Your task to perform on an android device: Open Google Chrome and open the bookmarks view Image 0: 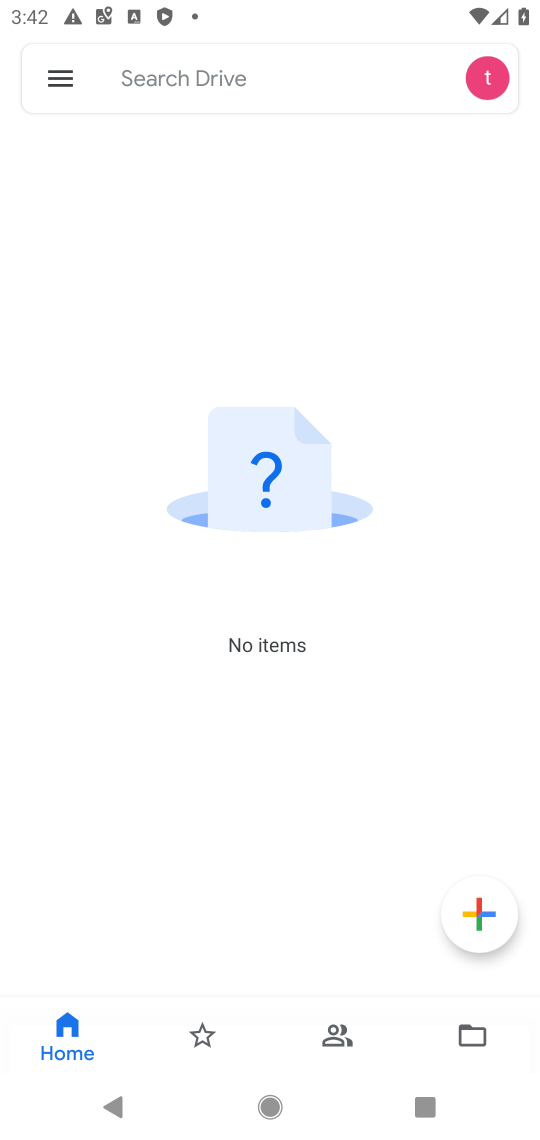
Step 0: press back button
Your task to perform on an android device: Open Google Chrome and open the bookmarks view Image 1: 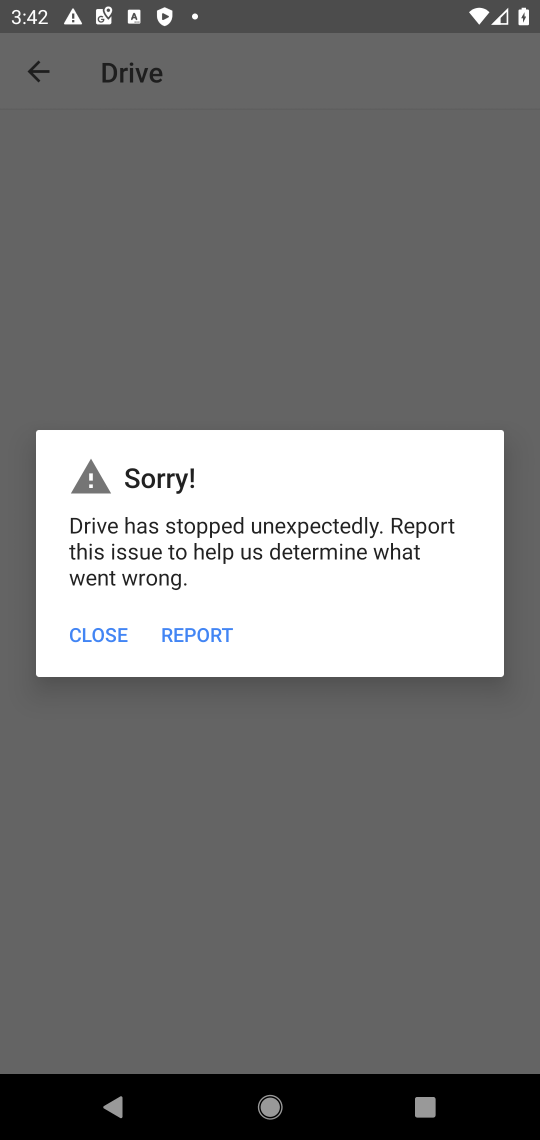
Step 1: press back button
Your task to perform on an android device: Open Google Chrome and open the bookmarks view Image 2: 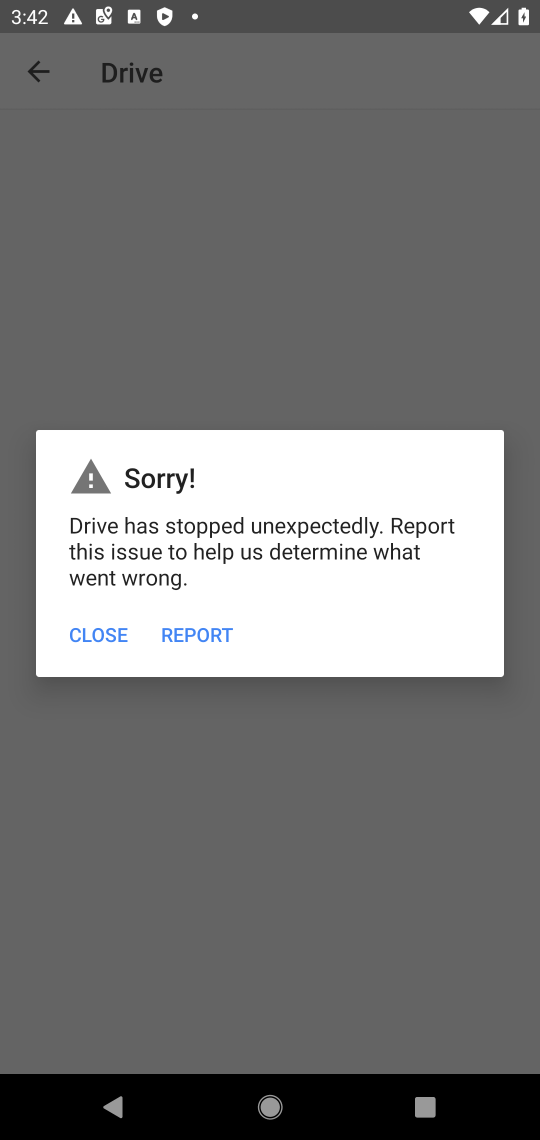
Step 2: press back button
Your task to perform on an android device: Open Google Chrome and open the bookmarks view Image 3: 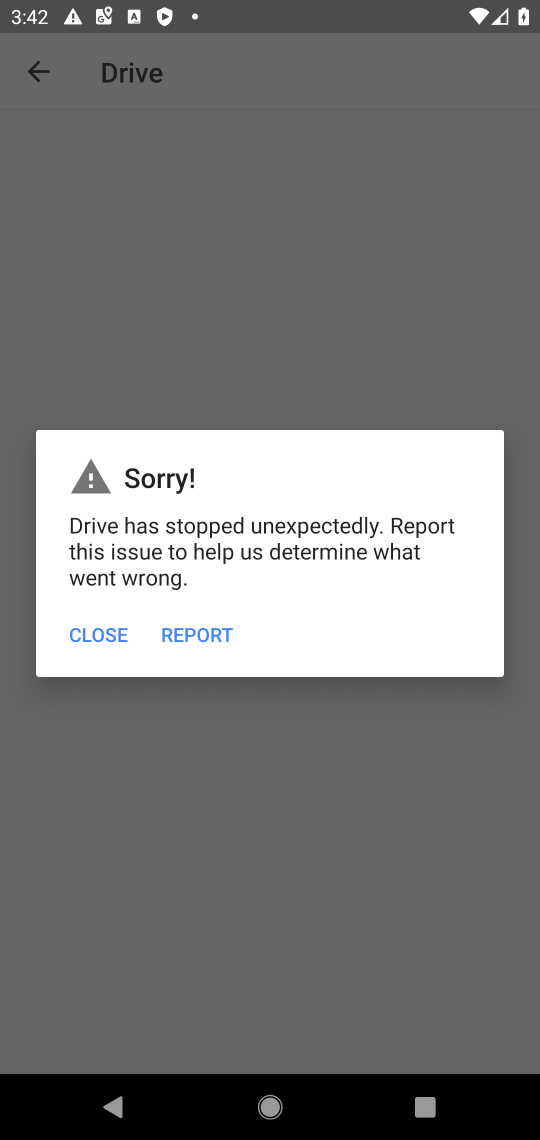
Step 3: press home button
Your task to perform on an android device: Open Google Chrome and open the bookmarks view Image 4: 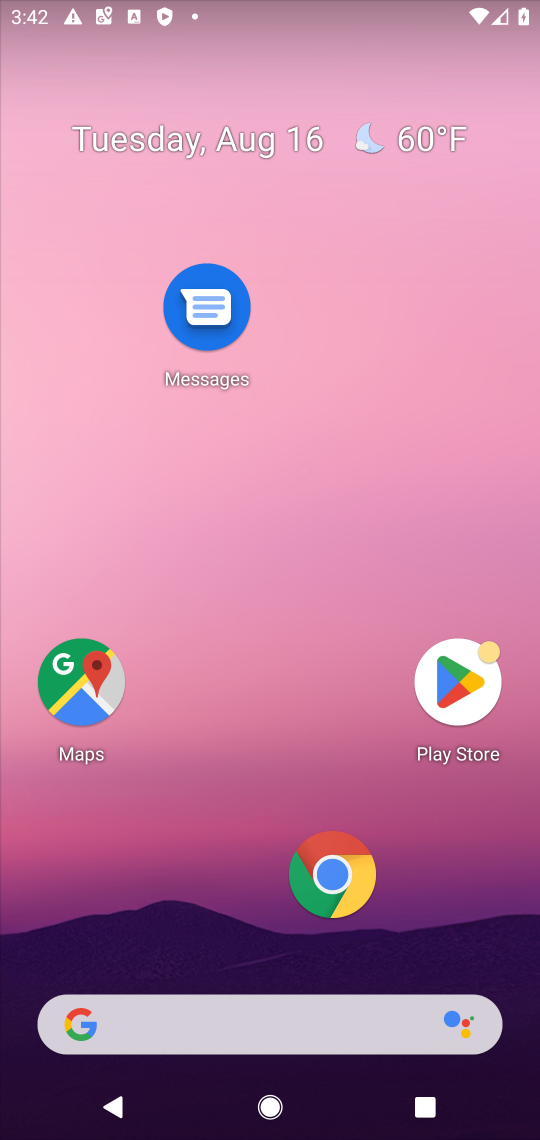
Step 4: click (321, 879)
Your task to perform on an android device: Open Google Chrome and open the bookmarks view Image 5: 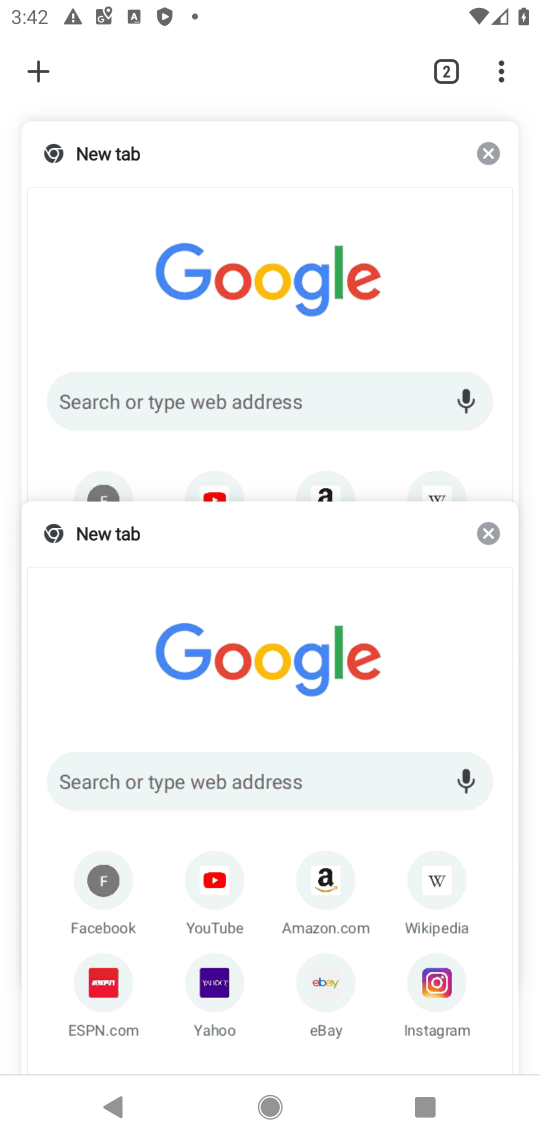
Step 5: click (493, 79)
Your task to perform on an android device: Open Google Chrome and open the bookmarks view Image 6: 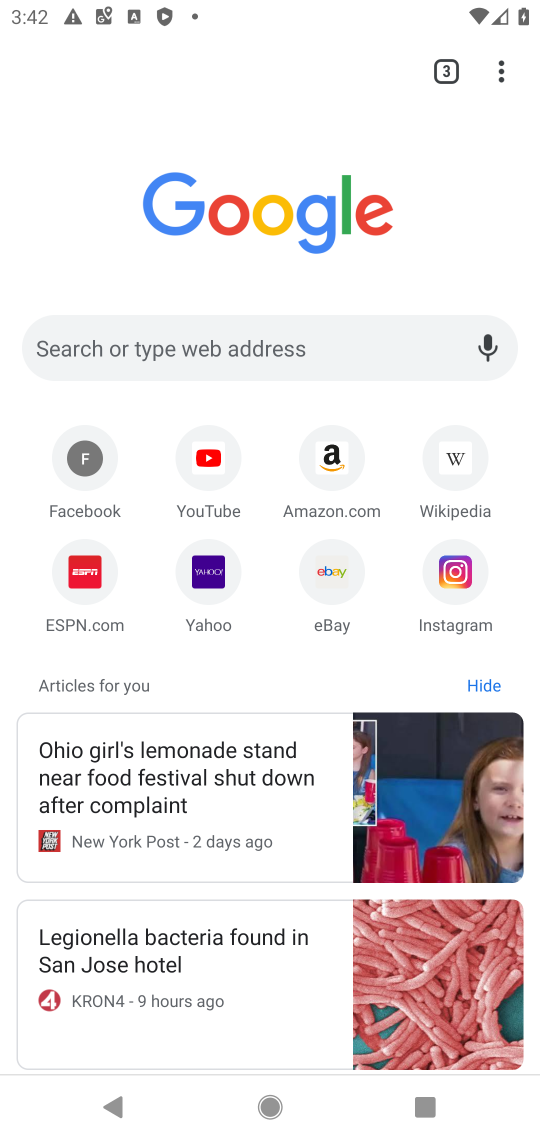
Step 6: click (498, 75)
Your task to perform on an android device: Open Google Chrome and open the bookmarks view Image 7: 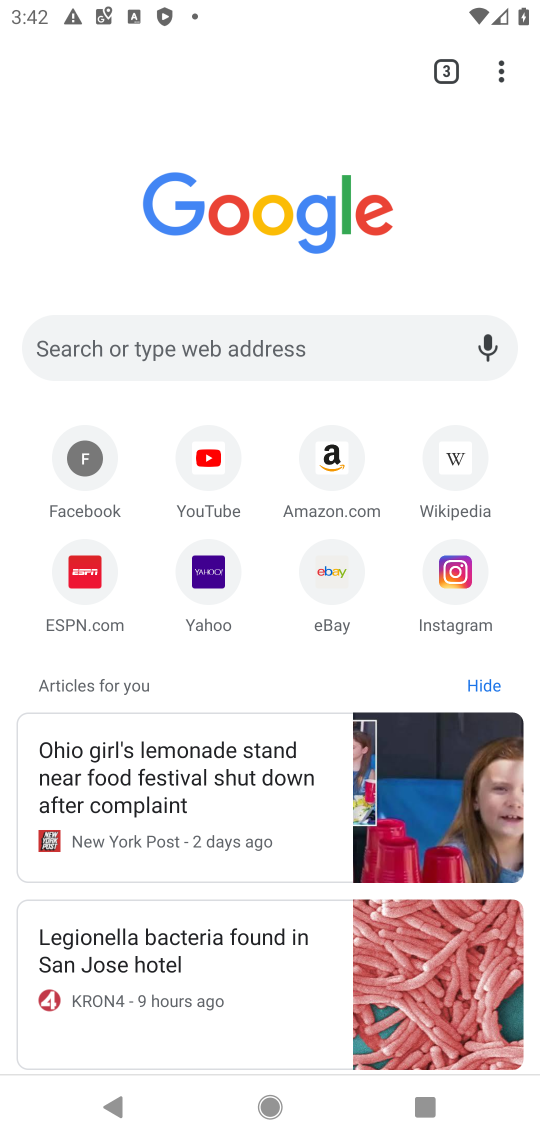
Step 7: click (506, 82)
Your task to perform on an android device: Open Google Chrome and open the bookmarks view Image 8: 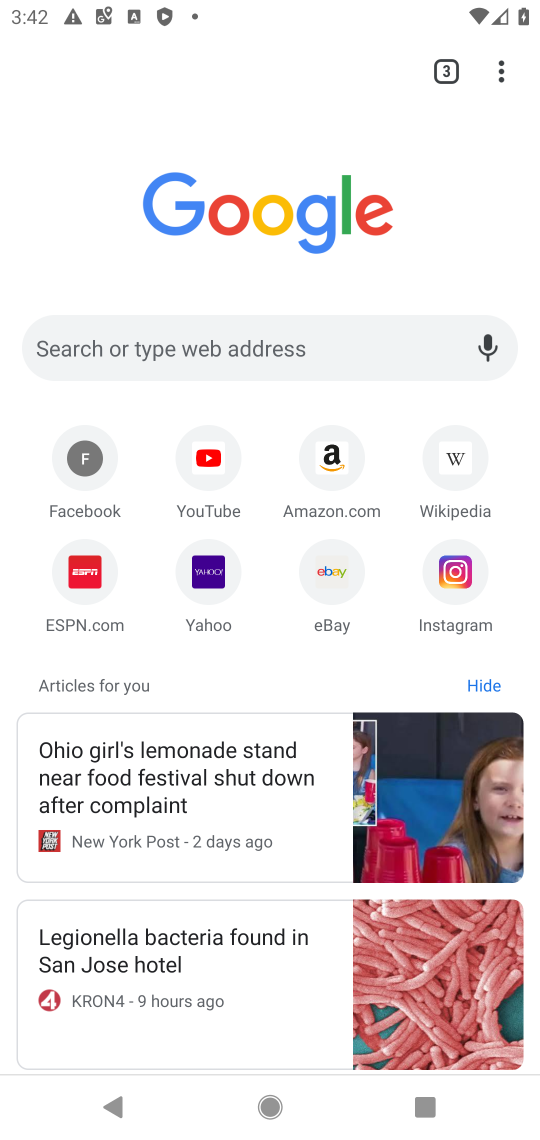
Step 8: click (501, 87)
Your task to perform on an android device: Open Google Chrome and open the bookmarks view Image 9: 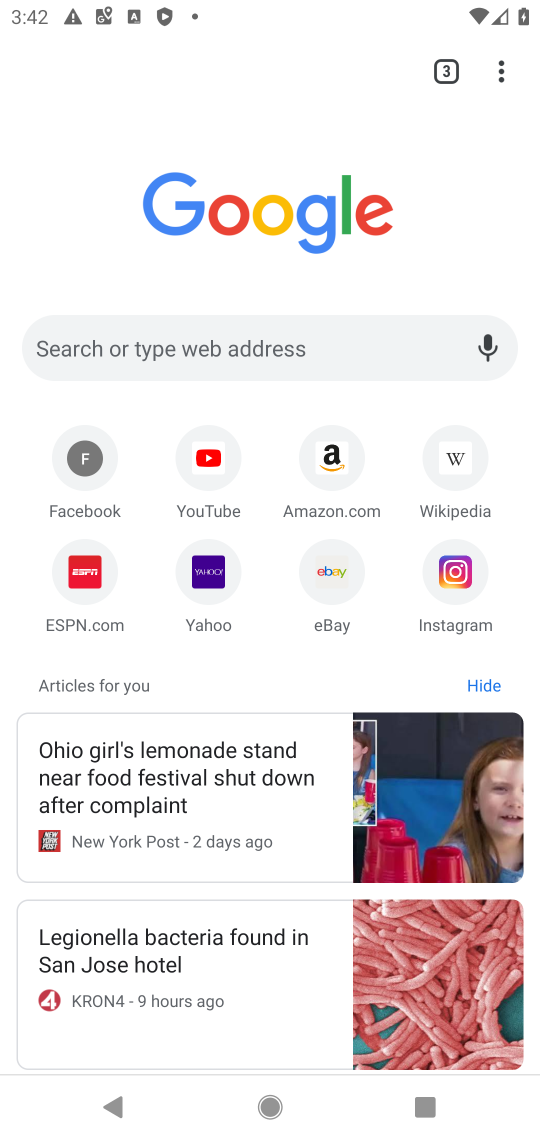
Step 9: click (505, 71)
Your task to perform on an android device: Open Google Chrome and open the bookmarks view Image 10: 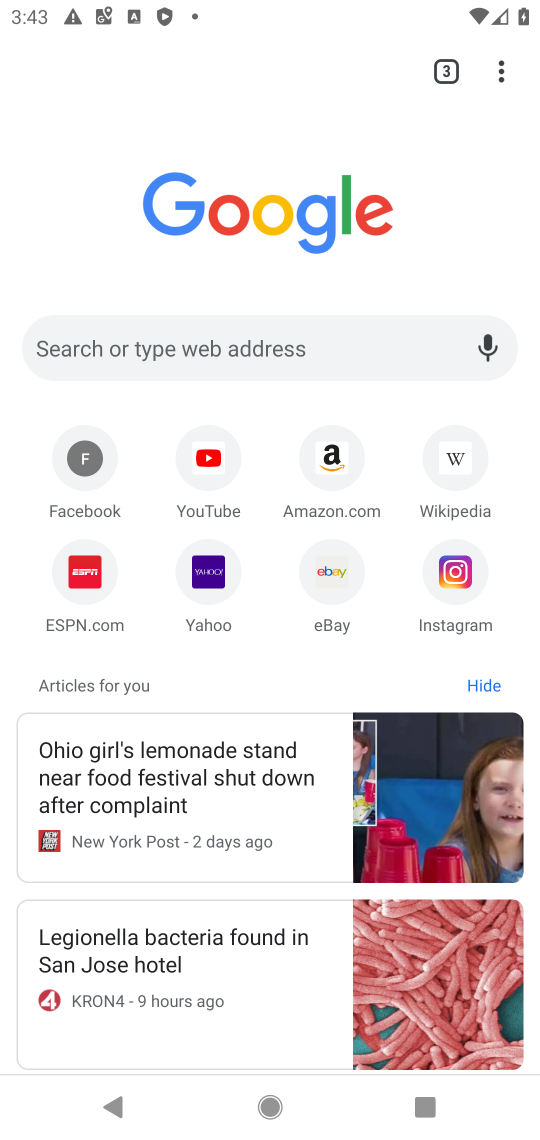
Step 10: click (505, 71)
Your task to perform on an android device: Open Google Chrome and open the bookmarks view Image 11: 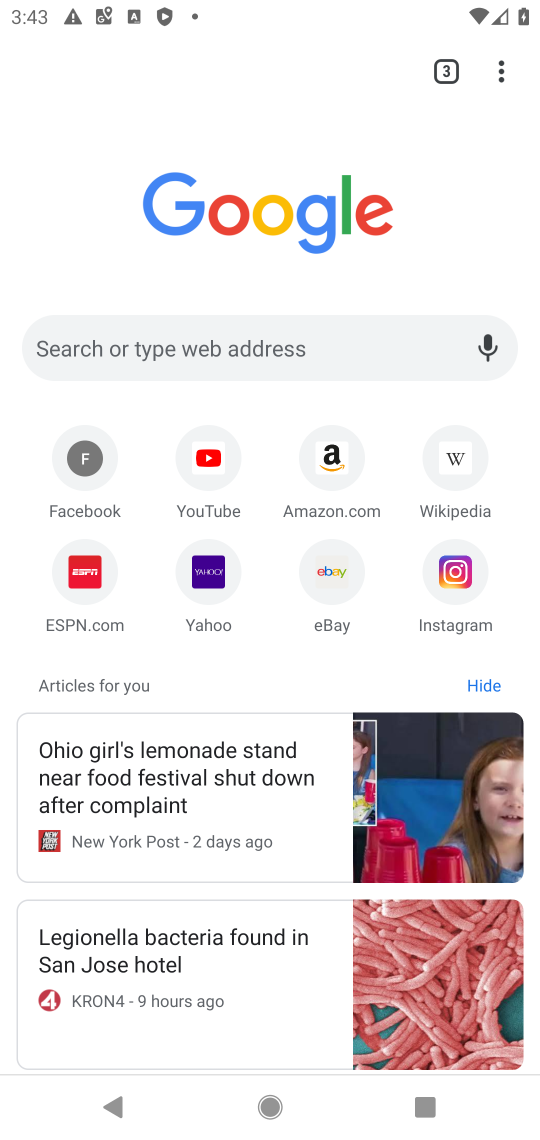
Step 11: click (499, 72)
Your task to perform on an android device: Open Google Chrome and open the bookmarks view Image 12: 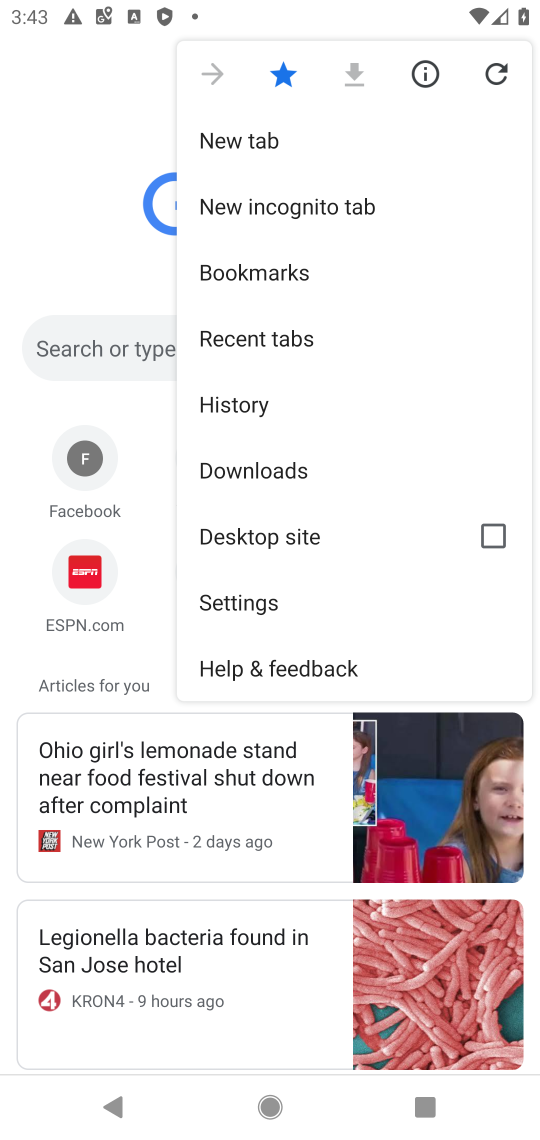
Step 12: click (228, 280)
Your task to perform on an android device: Open Google Chrome and open the bookmarks view Image 13: 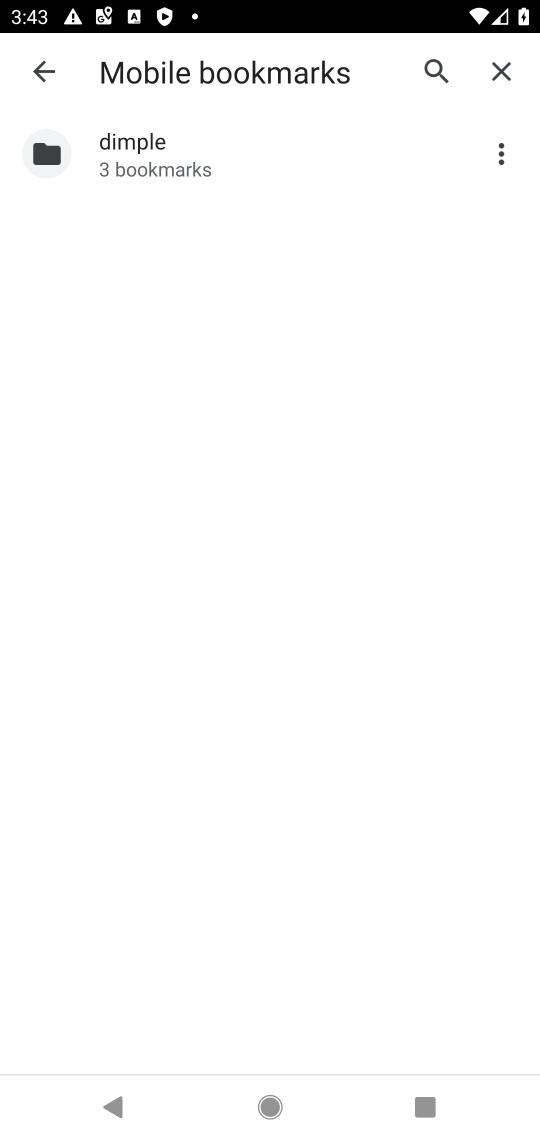
Step 13: click (125, 160)
Your task to perform on an android device: Open Google Chrome and open the bookmarks view Image 14: 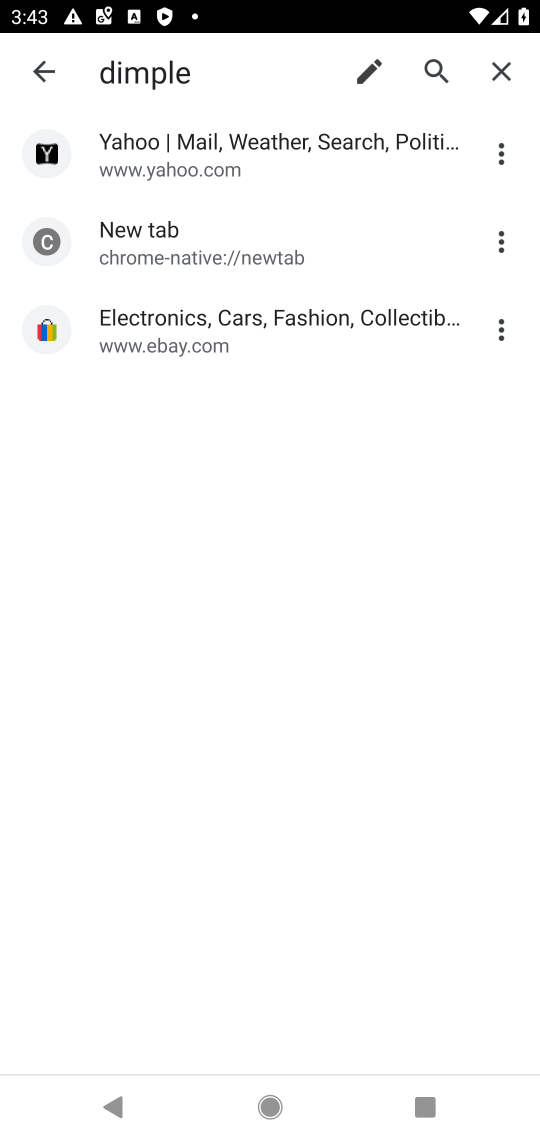
Step 14: task complete